Your task to perform on an android device: Go to notification settings Image 0: 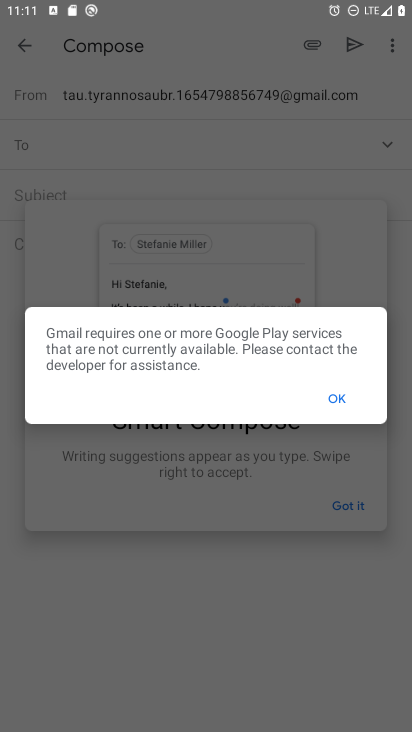
Step 0: press home button
Your task to perform on an android device: Go to notification settings Image 1: 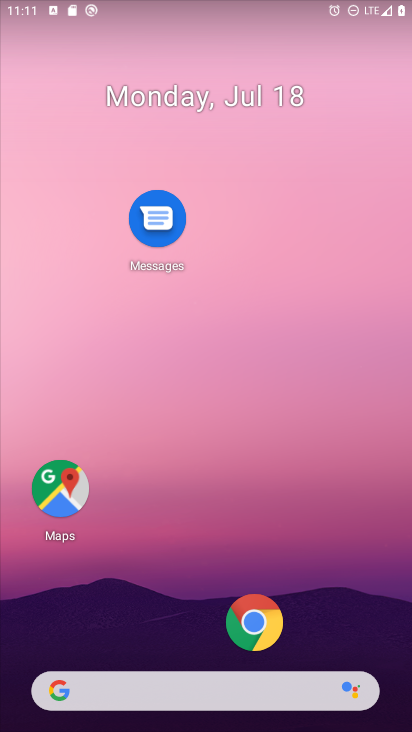
Step 1: drag from (205, 658) to (223, 189)
Your task to perform on an android device: Go to notification settings Image 2: 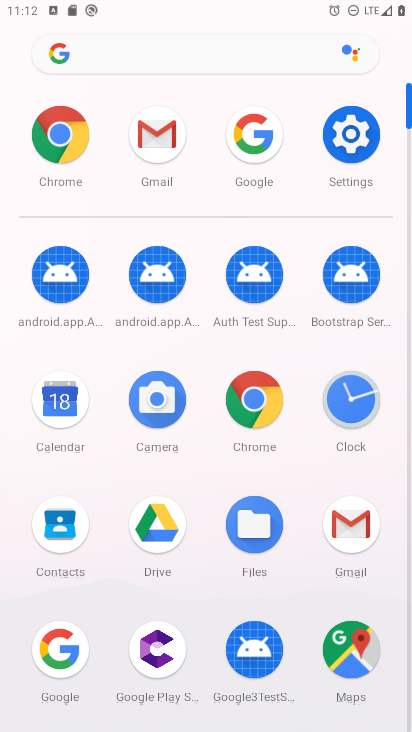
Step 2: click (339, 157)
Your task to perform on an android device: Go to notification settings Image 3: 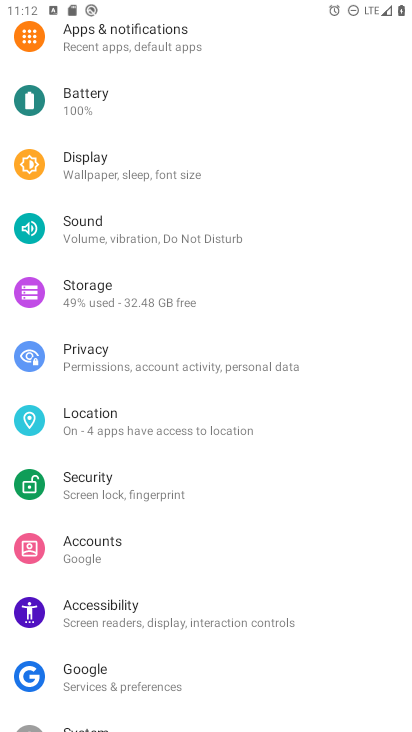
Step 3: drag from (189, 357) to (152, 601)
Your task to perform on an android device: Go to notification settings Image 4: 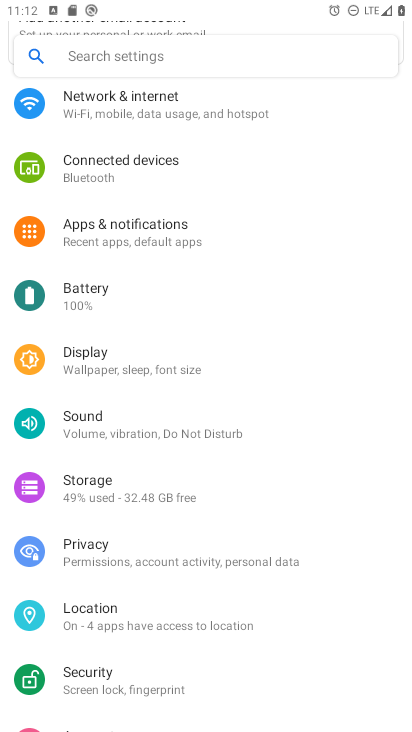
Step 4: click (128, 239)
Your task to perform on an android device: Go to notification settings Image 5: 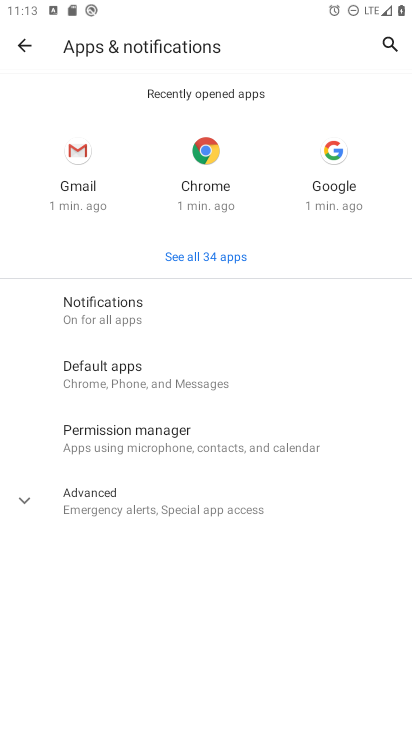
Step 5: click (187, 328)
Your task to perform on an android device: Go to notification settings Image 6: 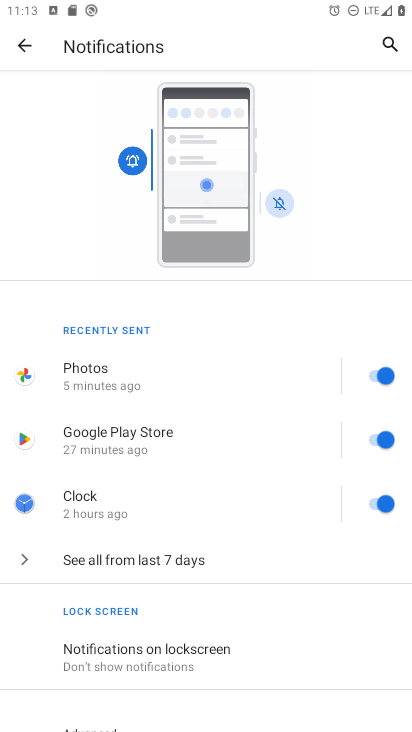
Step 6: task complete